Your task to perform on an android device: change alarm snooze length Image 0: 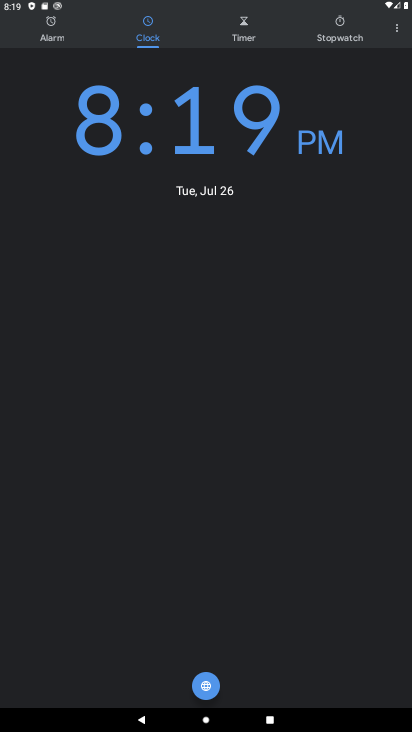
Step 0: drag from (393, 27) to (361, 53)
Your task to perform on an android device: change alarm snooze length Image 1: 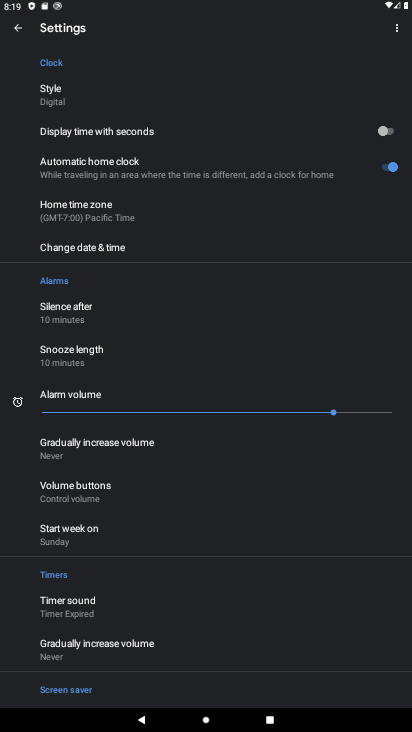
Step 1: click (76, 362)
Your task to perform on an android device: change alarm snooze length Image 2: 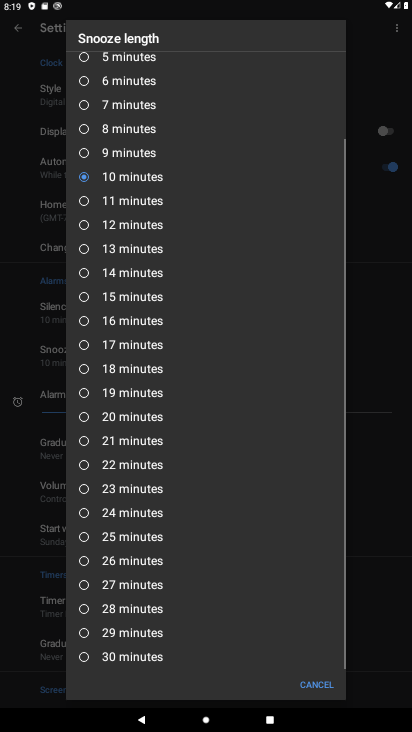
Step 2: drag from (166, 183) to (275, 716)
Your task to perform on an android device: change alarm snooze length Image 3: 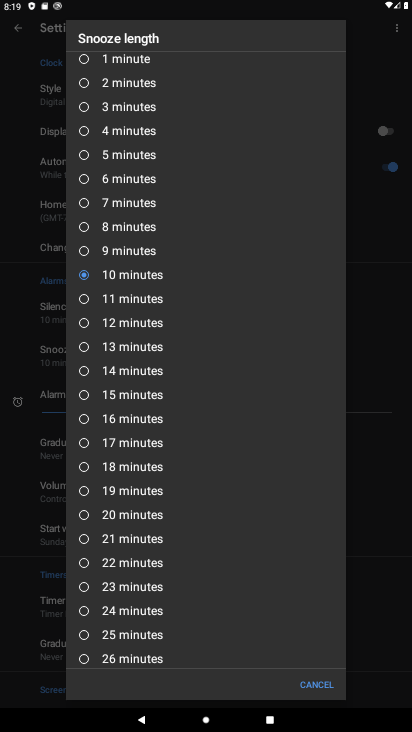
Step 3: click (116, 60)
Your task to perform on an android device: change alarm snooze length Image 4: 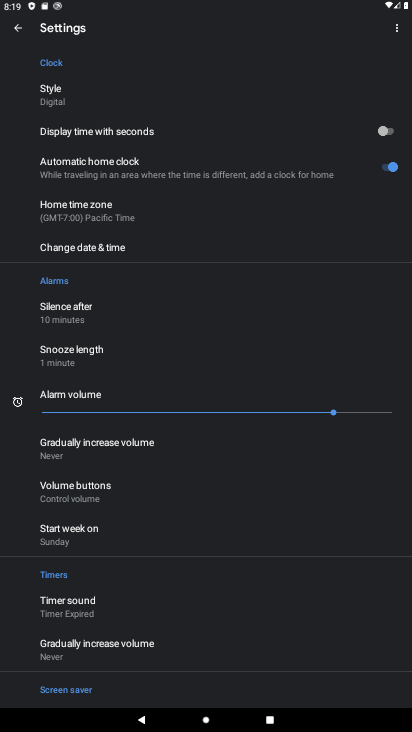
Step 4: task complete